Your task to perform on an android device: star an email in the gmail app Image 0: 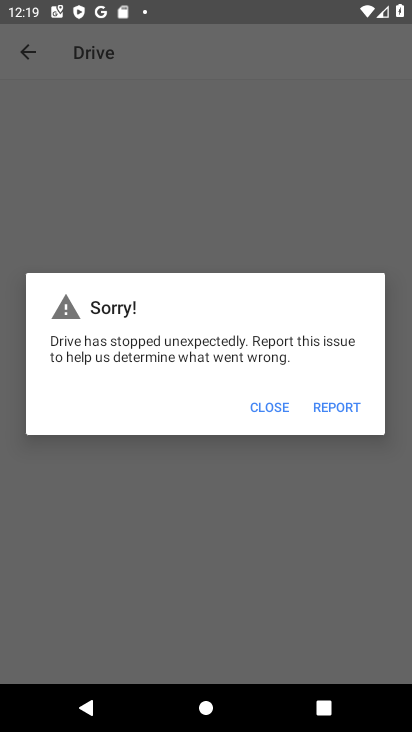
Step 0: press home button
Your task to perform on an android device: star an email in the gmail app Image 1: 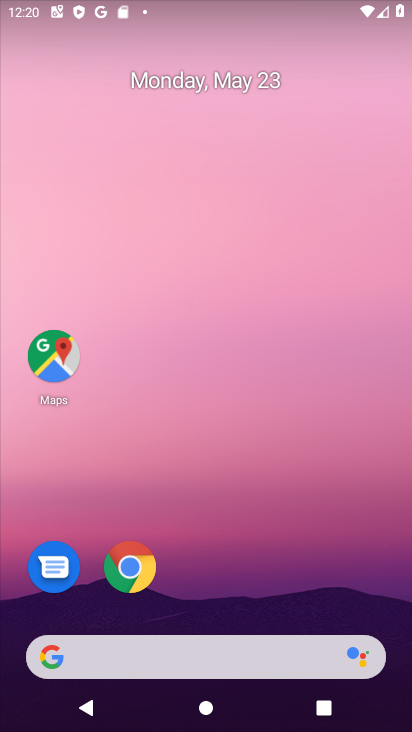
Step 1: drag from (251, 581) to (290, 133)
Your task to perform on an android device: star an email in the gmail app Image 2: 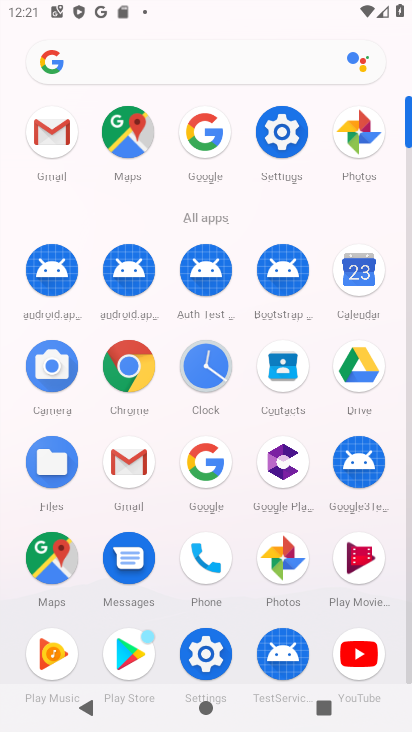
Step 2: click (64, 123)
Your task to perform on an android device: star an email in the gmail app Image 3: 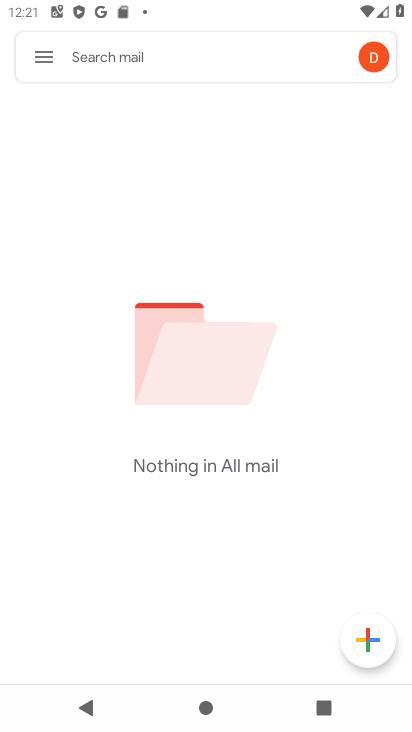
Step 3: click (40, 67)
Your task to perform on an android device: star an email in the gmail app Image 4: 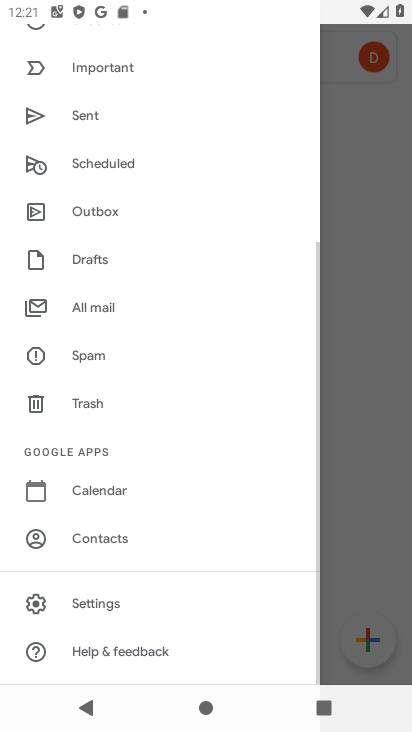
Step 4: click (128, 301)
Your task to perform on an android device: star an email in the gmail app Image 5: 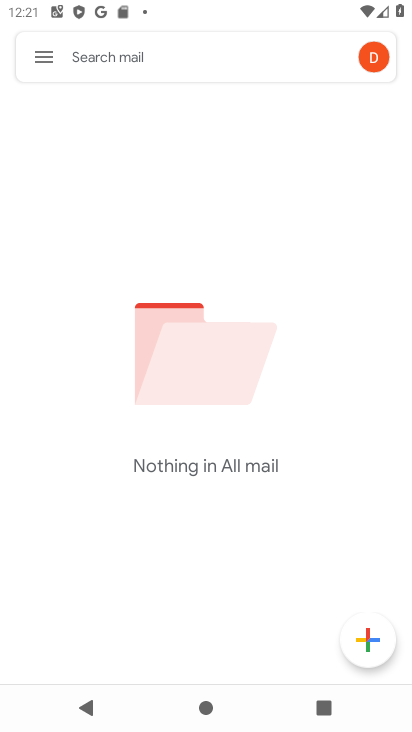
Step 5: task complete